Your task to perform on an android device: manage bookmarks in the chrome app Image 0: 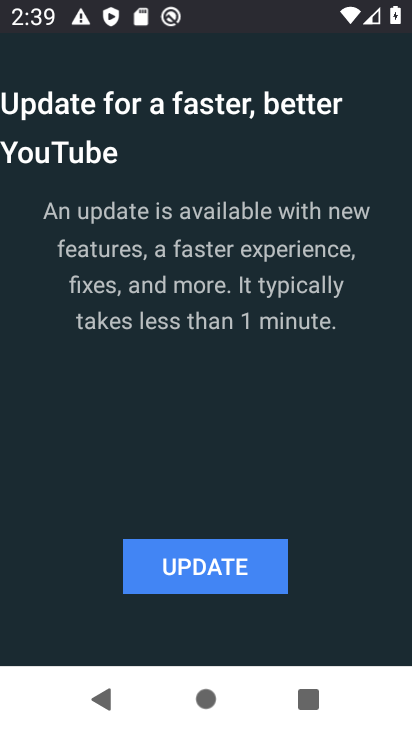
Step 0: press home button
Your task to perform on an android device: manage bookmarks in the chrome app Image 1: 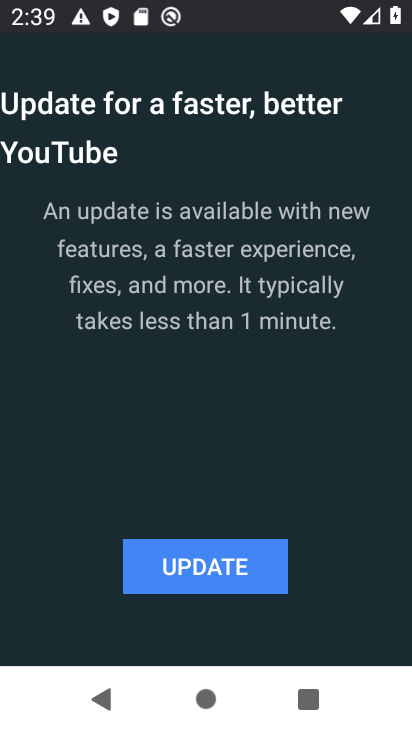
Step 1: press home button
Your task to perform on an android device: manage bookmarks in the chrome app Image 2: 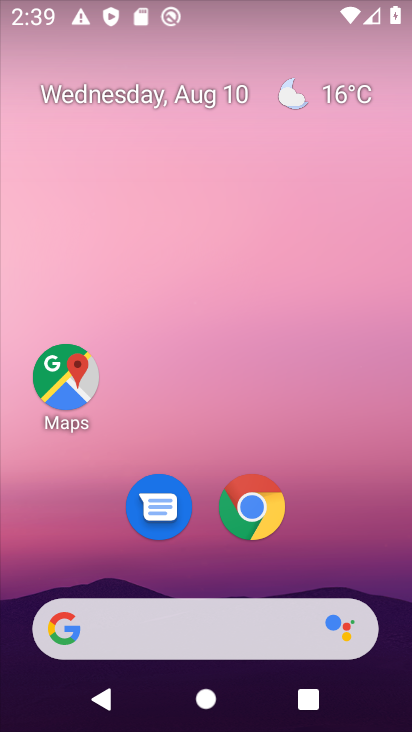
Step 2: click (257, 504)
Your task to perform on an android device: manage bookmarks in the chrome app Image 3: 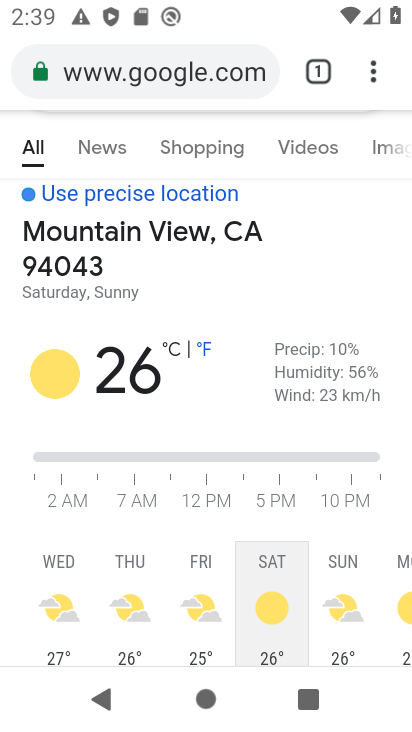
Step 3: drag from (368, 71) to (139, 277)
Your task to perform on an android device: manage bookmarks in the chrome app Image 4: 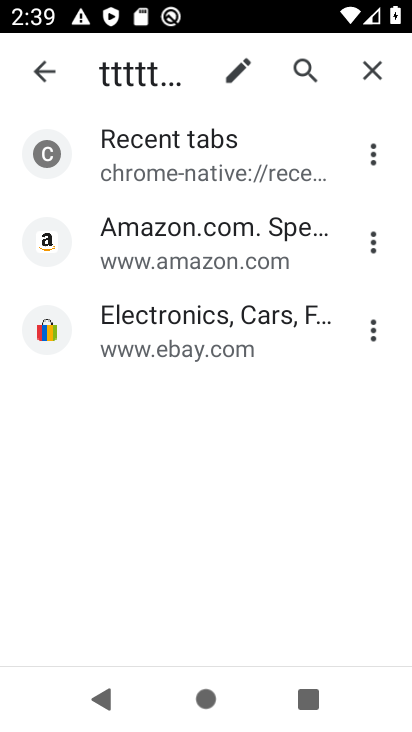
Step 4: click (369, 246)
Your task to perform on an android device: manage bookmarks in the chrome app Image 5: 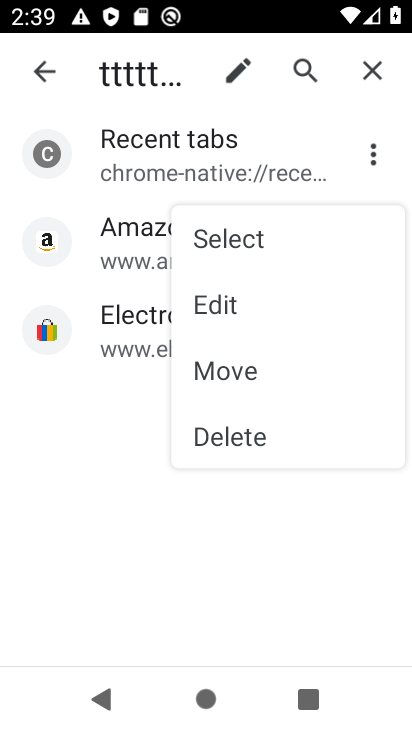
Step 5: click (229, 302)
Your task to perform on an android device: manage bookmarks in the chrome app Image 6: 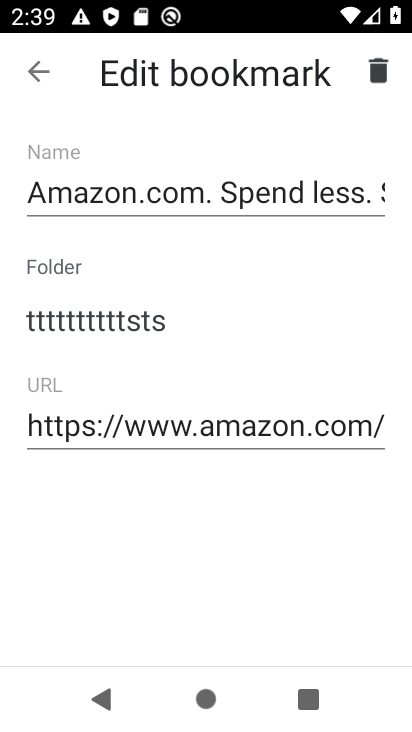
Step 6: click (148, 183)
Your task to perform on an android device: manage bookmarks in the chrome app Image 7: 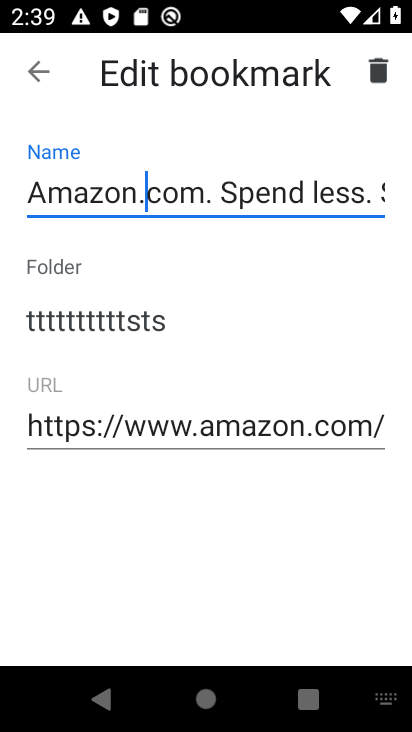
Step 7: type "gg"
Your task to perform on an android device: manage bookmarks in the chrome app Image 8: 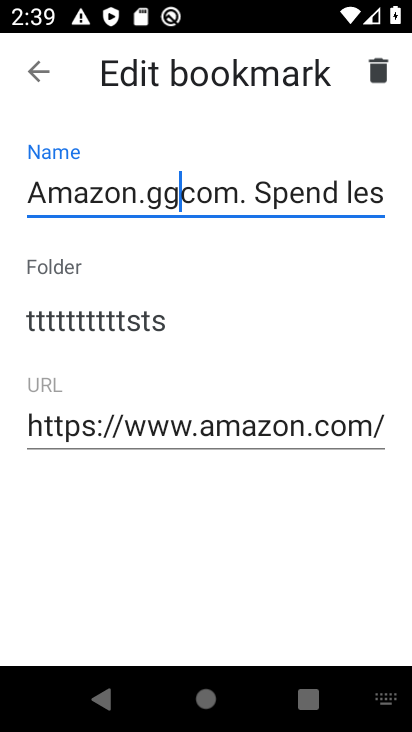
Step 8: type ""
Your task to perform on an android device: manage bookmarks in the chrome app Image 9: 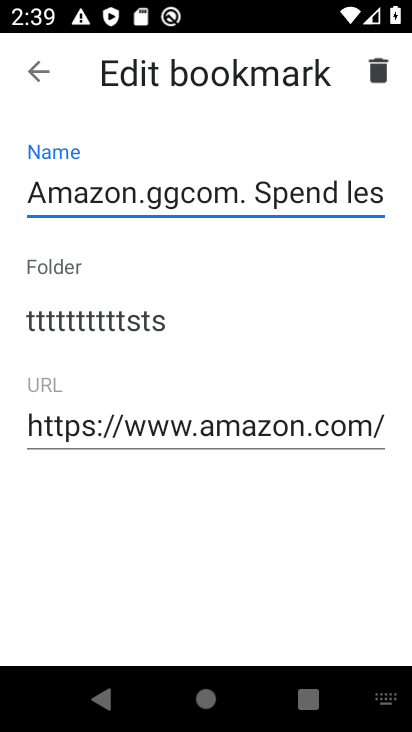
Step 9: task complete